Your task to perform on an android device: When is my next appointment? Image 0: 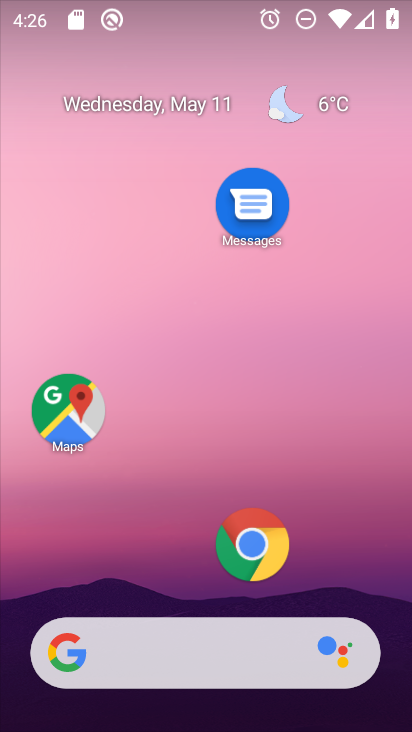
Step 0: drag from (170, 483) to (233, 67)
Your task to perform on an android device: When is my next appointment? Image 1: 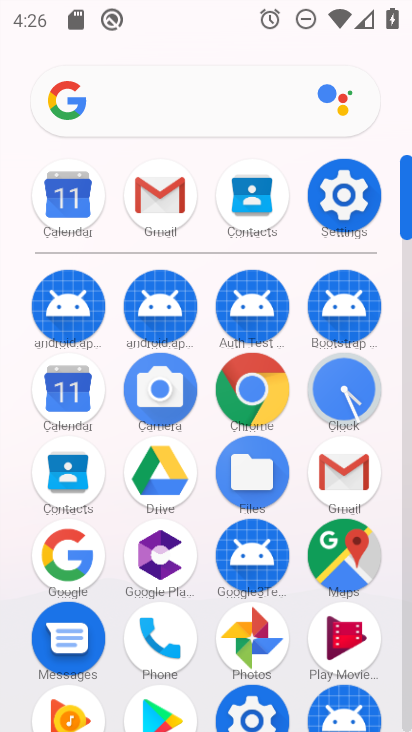
Step 1: click (66, 377)
Your task to perform on an android device: When is my next appointment? Image 2: 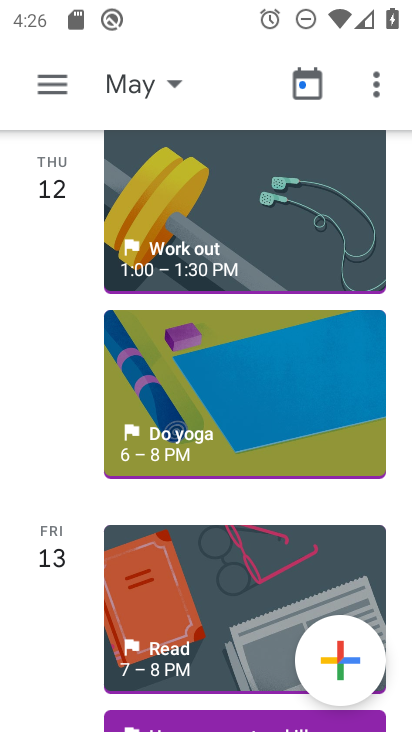
Step 2: drag from (204, 595) to (305, 167)
Your task to perform on an android device: When is my next appointment? Image 3: 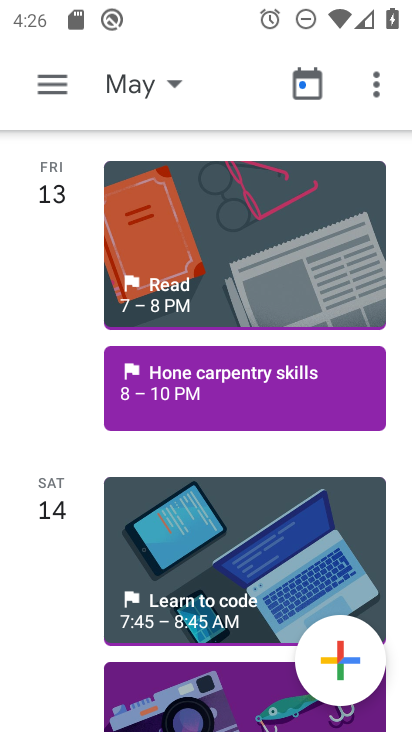
Step 3: drag from (186, 579) to (286, 134)
Your task to perform on an android device: When is my next appointment? Image 4: 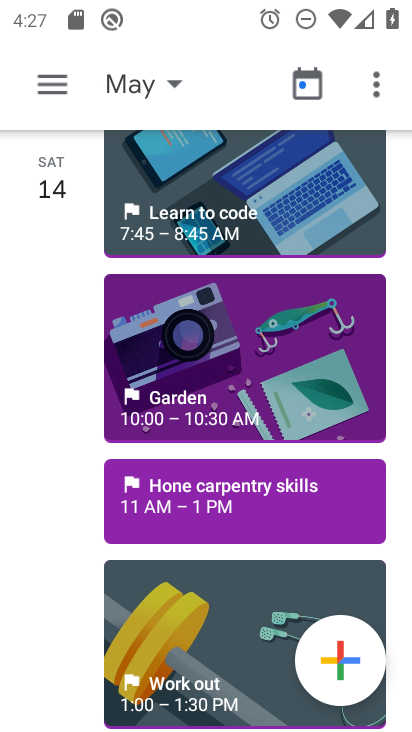
Step 4: drag from (187, 682) to (269, 183)
Your task to perform on an android device: When is my next appointment? Image 5: 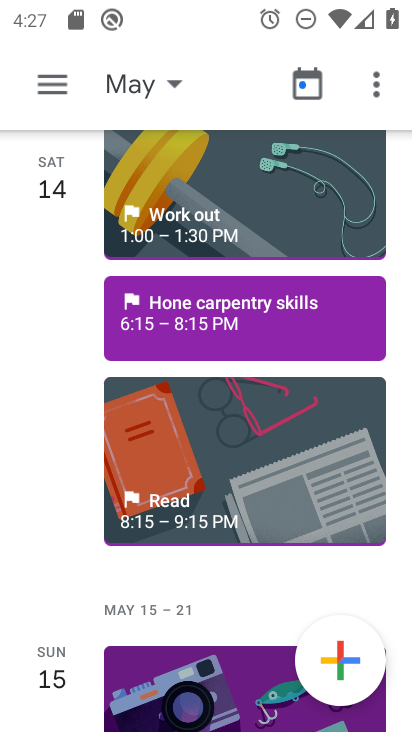
Step 5: drag from (214, 679) to (317, 85)
Your task to perform on an android device: When is my next appointment? Image 6: 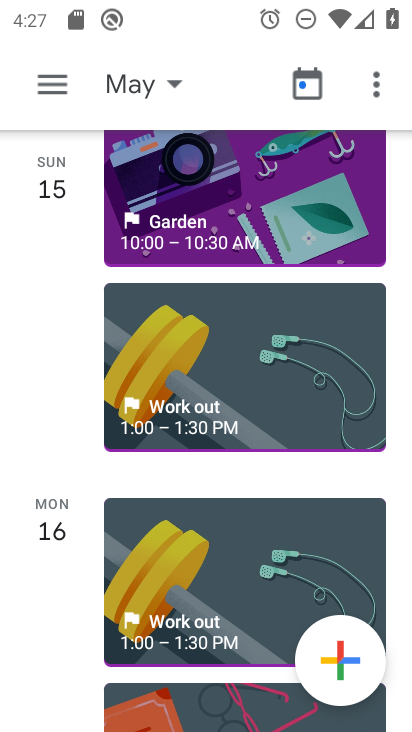
Step 6: drag from (203, 497) to (268, 82)
Your task to perform on an android device: When is my next appointment? Image 7: 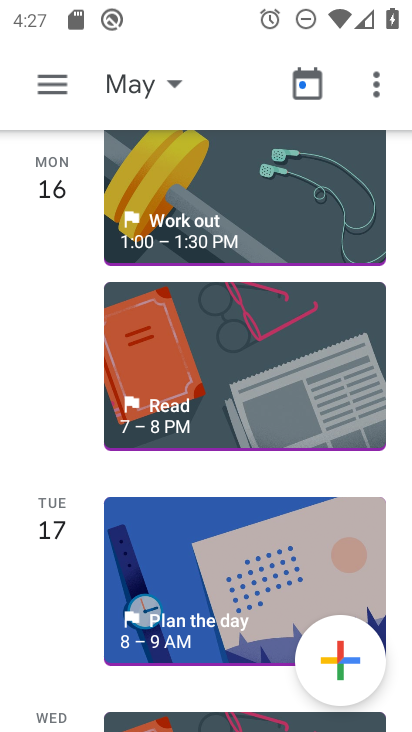
Step 7: drag from (247, 592) to (306, 154)
Your task to perform on an android device: When is my next appointment? Image 8: 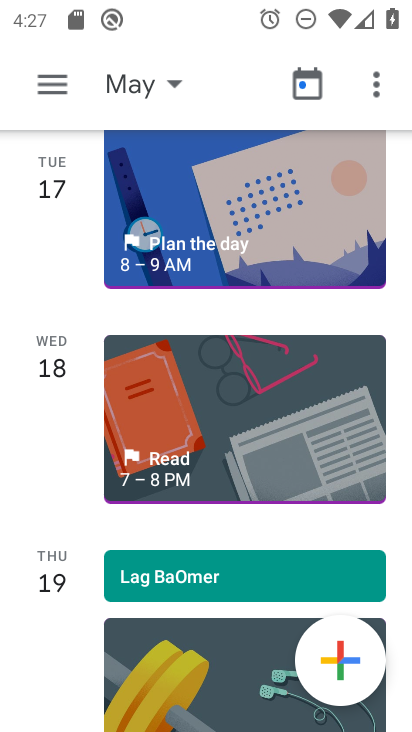
Step 8: click (227, 459)
Your task to perform on an android device: When is my next appointment? Image 9: 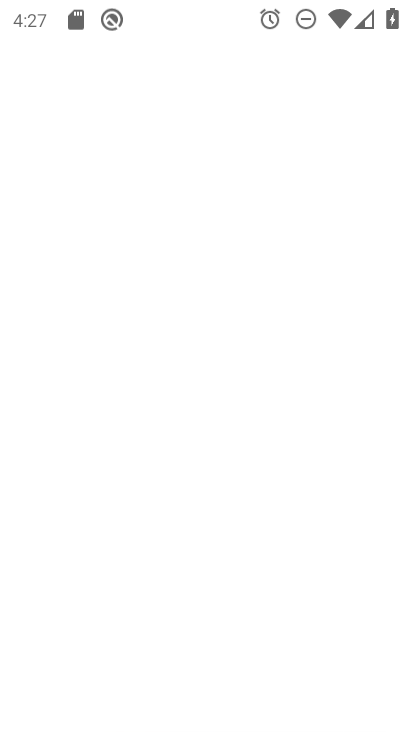
Step 9: task complete